Your task to perform on an android device: check android version Image 0: 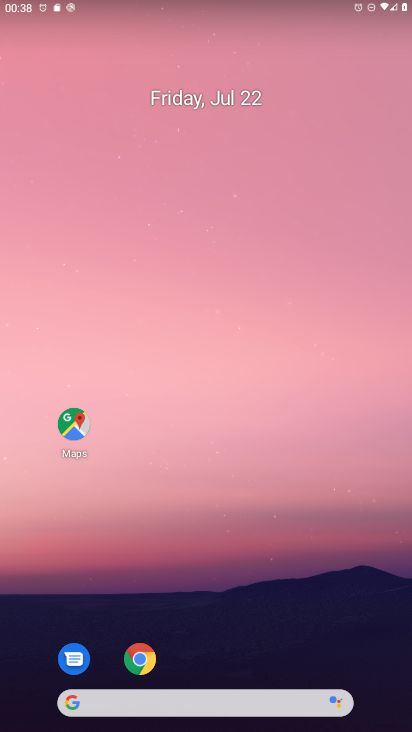
Step 0: drag from (181, 697) to (254, 262)
Your task to perform on an android device: check android version Image 1: 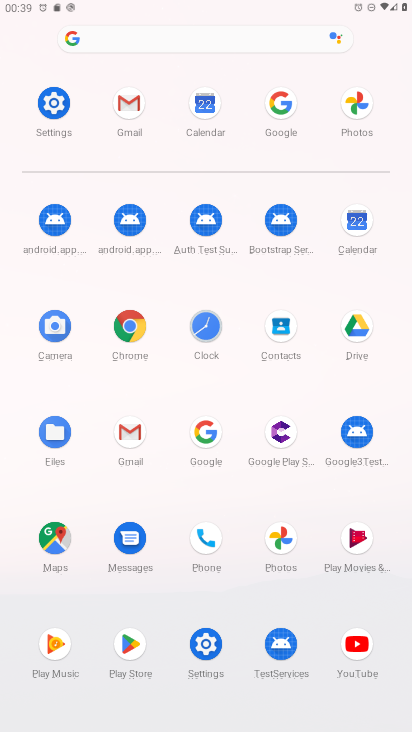
Step 1: click (207, 640)
Your task to perform on an android device: check android version Image 2: 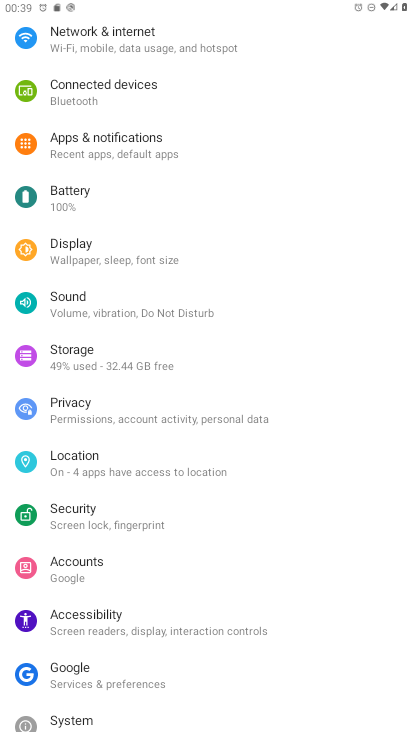
Step 2: drag from (95, 651) to (174, 520)
Your task to perform on an android device: check android version Image 3: 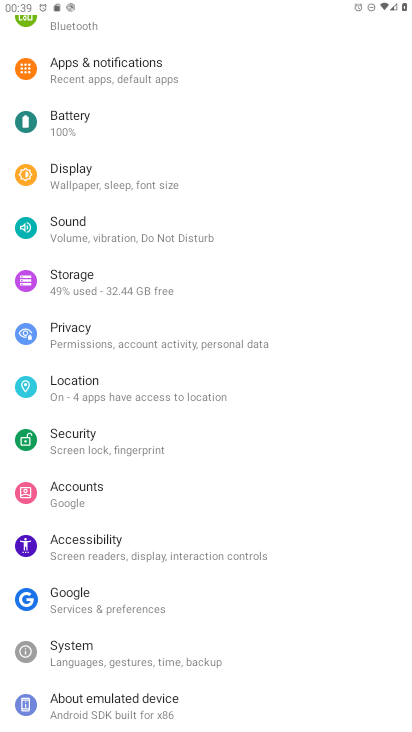
Step 3: click (102, 699)
Your task to perform on an android device: check android version Image 4: 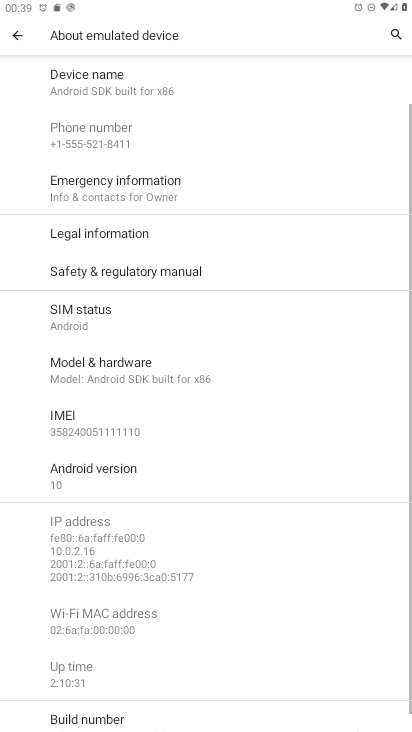
Step 4: click (91, 469)
Your task to perform on an android device: check android version Image 5: 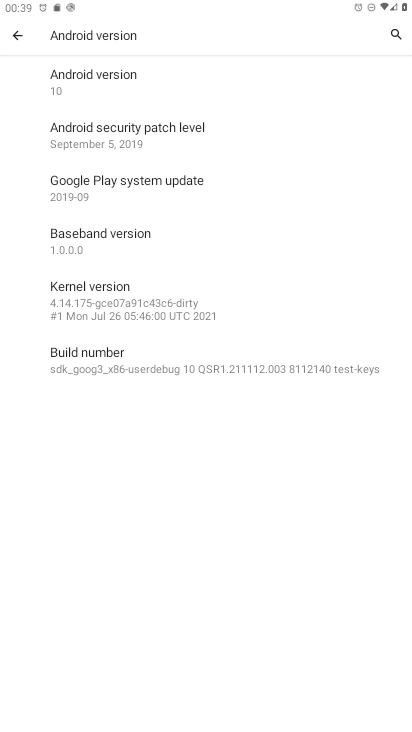
Step 5: task complete